Your task to perform on an android device: Open privacy settings Image 0: 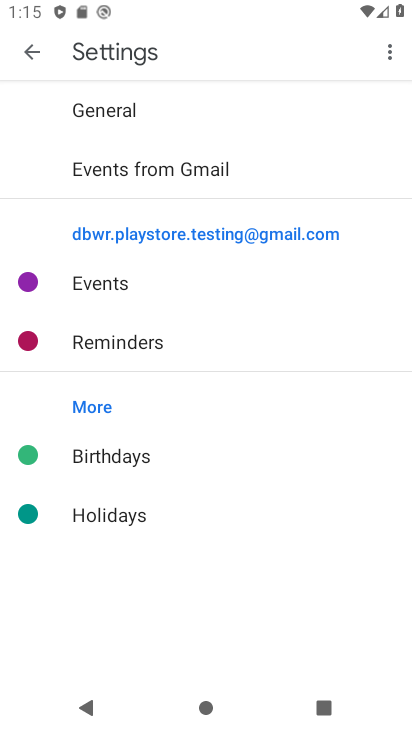
Step 0: press home button
Your task to perform on an android device: Open privacy settings Image 1: 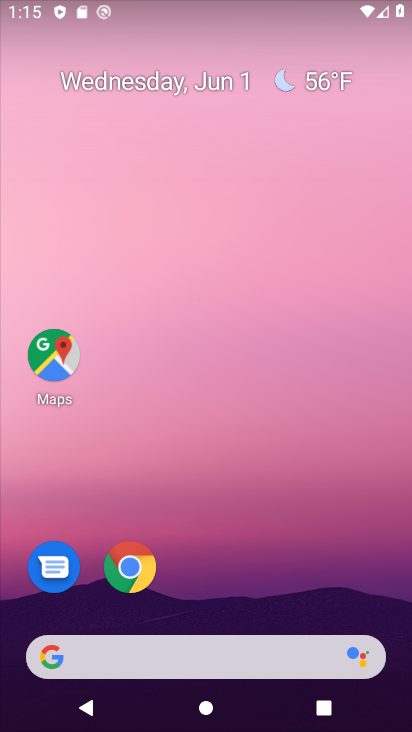
Step 1: drag from (179, 635) to (168, 424)
Your task to perform on an android device: Open privacy settings Image 2: 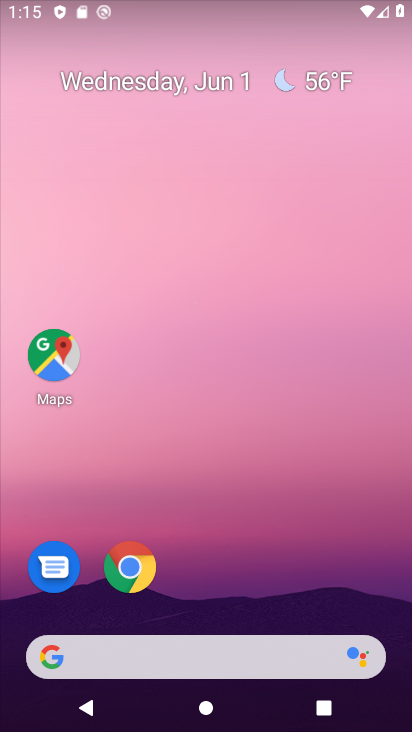
Step 2: drag from (198, 650) to (218, 352)
Your task to perform on an android device: Open privacy settings Image 3: 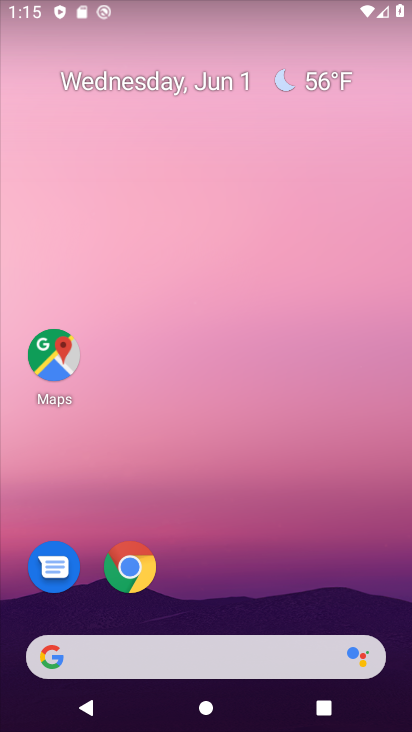
Step 3: drag from (216, 640) to (297, 2)
Your task to perform on an android device: Open privacy settings Image 4: 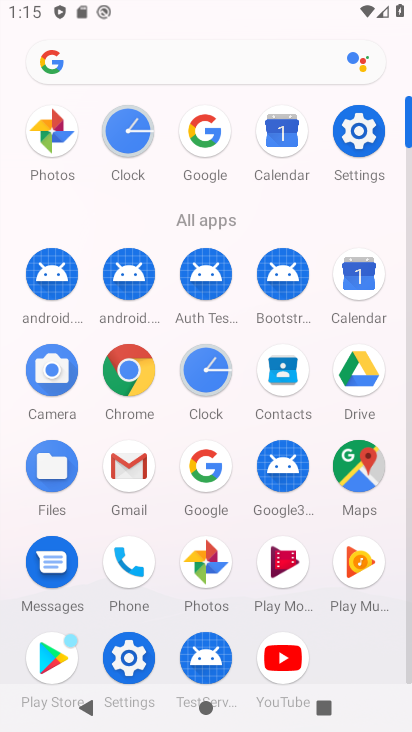
Step 4: click (349, 122)
Your task to perform on an android device: Open privacy settings Image 5: 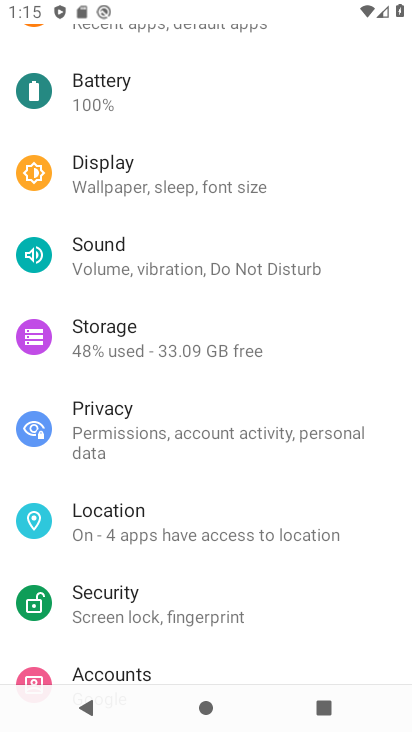
Step 5: click (163, 405)
Your task to perform on an android device: Open privacy settings Image 6: 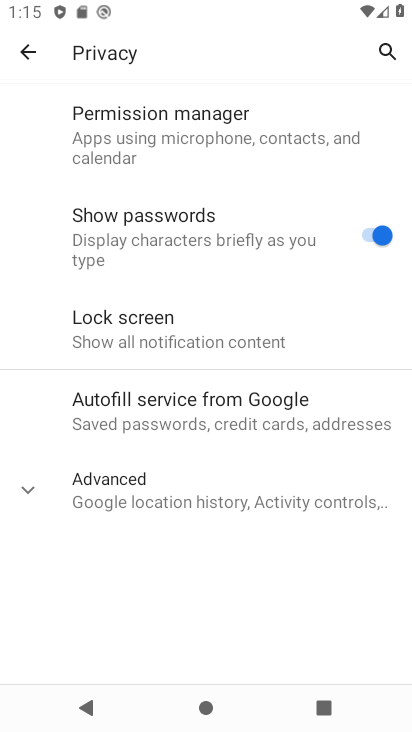
Step 6: task complete